Your task to perform on an android device: Open Reddit.com Image 0: 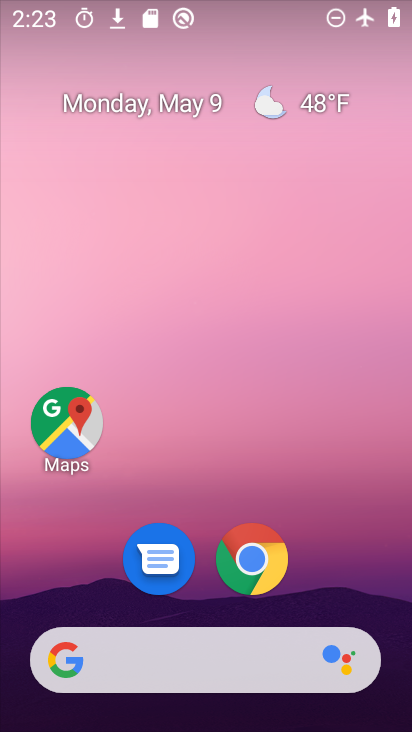
Step 0: drag from (207, 592) to (207, 281)
Your task to perform on an android device: Open Reddit.com Image 1: 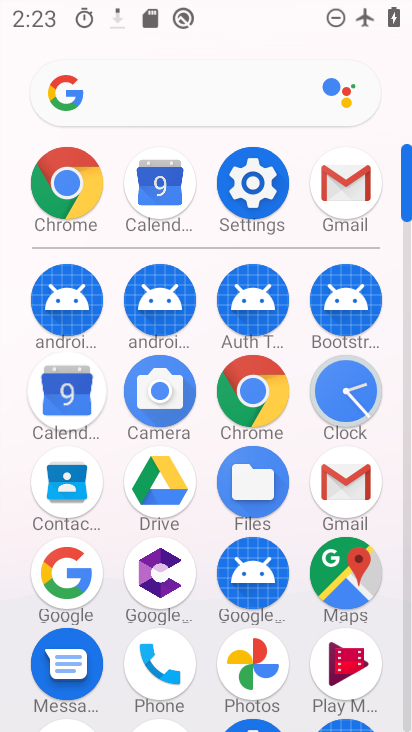
Step 1: click (191, 92)
Your task to perform on an android device: Open Reddit.com Image 2: 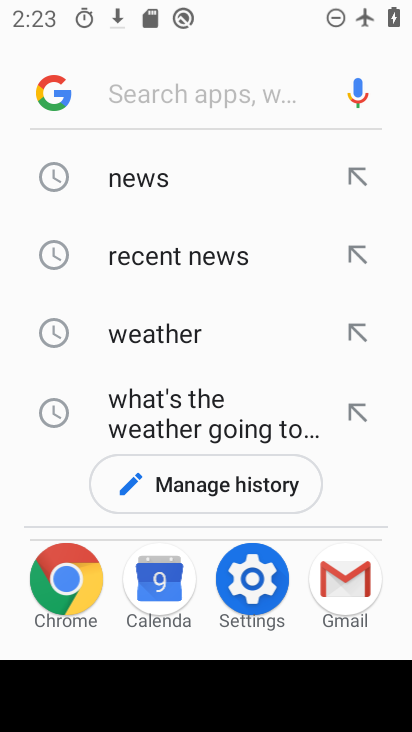
Step 2: type "reddit.com"
Your task to perform on an android device: Open Reddit.com Image 3: 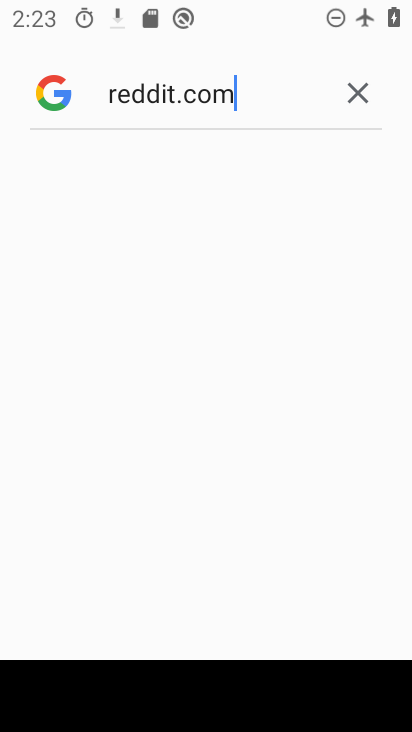
Step 3: drag from (240, 342) to (270, 155)
Your task to perform on an android device: Open Reddit.com Image 4: 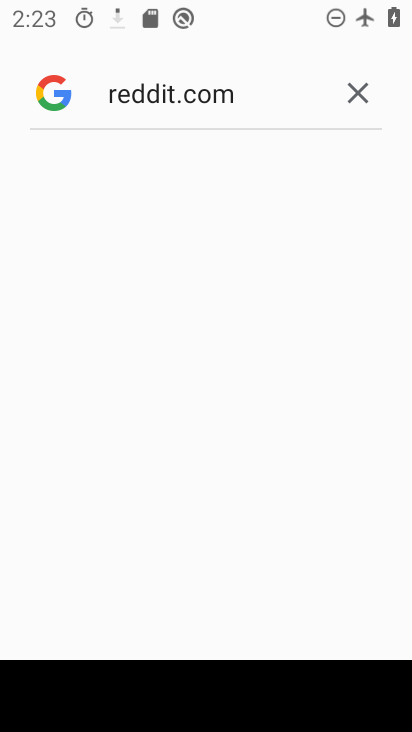
Step 4: click (184, 205)
Your task to perform on an android device: Open Reddit.com Image 5: 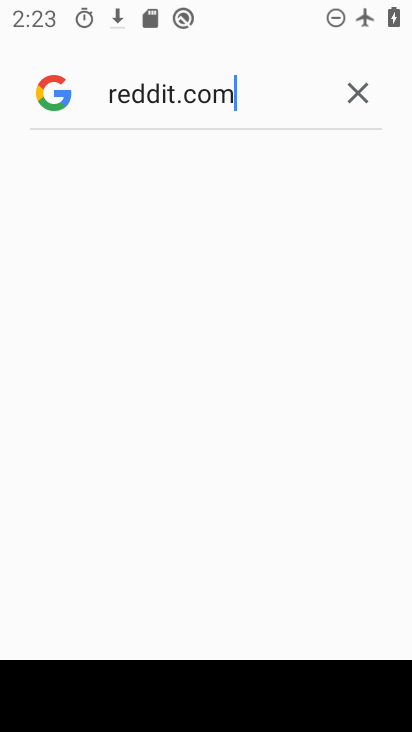
Step 5: drag from (229, 295) to (236, 362)
Your task to perform on an android device: Open Reddit.com Image 6: 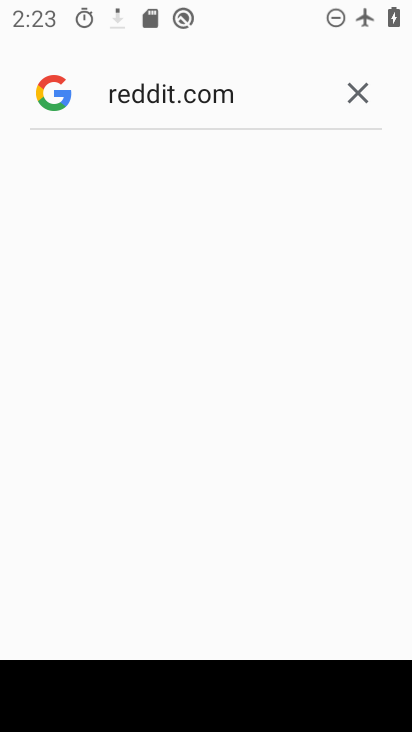
Step 6: click (236, 362)
Your task to perform on an android device: Open Reddit.com Image 7: 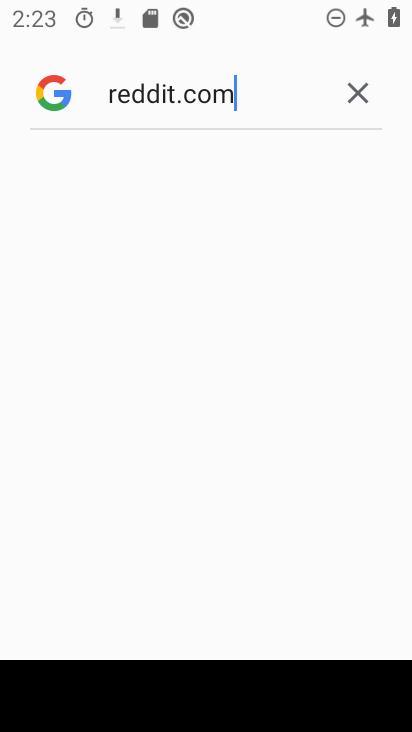
Step 7: click (235, 363)
Your task to perform on an android device: Open Reddit.com Image 8: 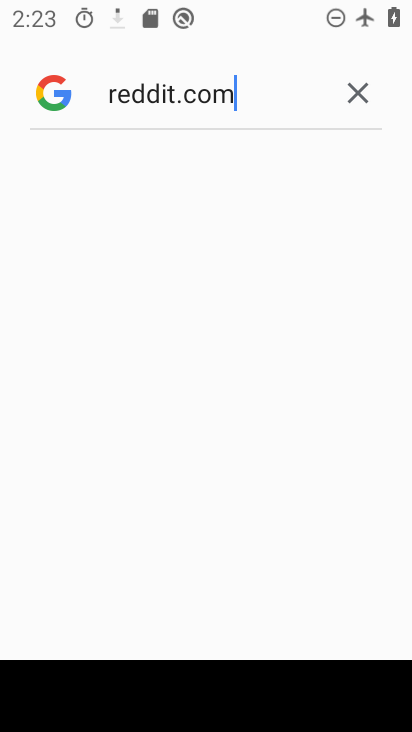
Step 8: click (233, 358)
Your task to perform on an android device: Open Reddit.com Image 9: 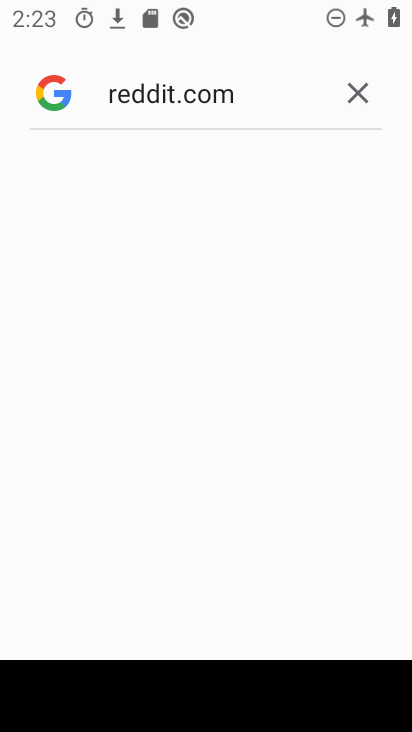
Step 9: click (233, 357)
Your task to perform on an android device: Open Reddit.com Image 10: 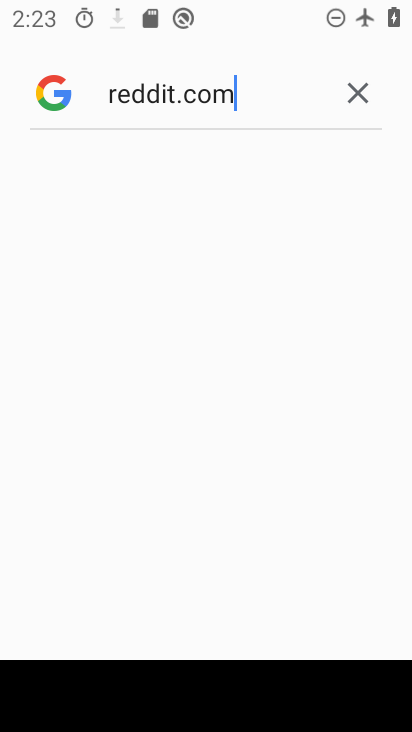
Step 10: click (233, 357)
Your task to perform on an android device: Open Reddit.com Image 11: 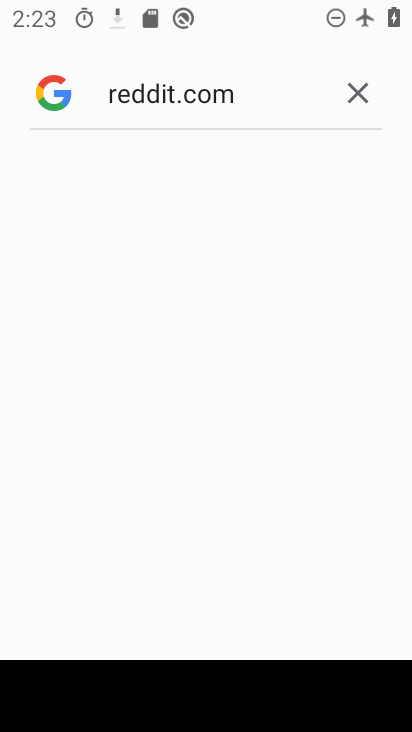
Step 11: click (239, 299)
Your task to perform on an android device: Open Reddit.com Image 12: 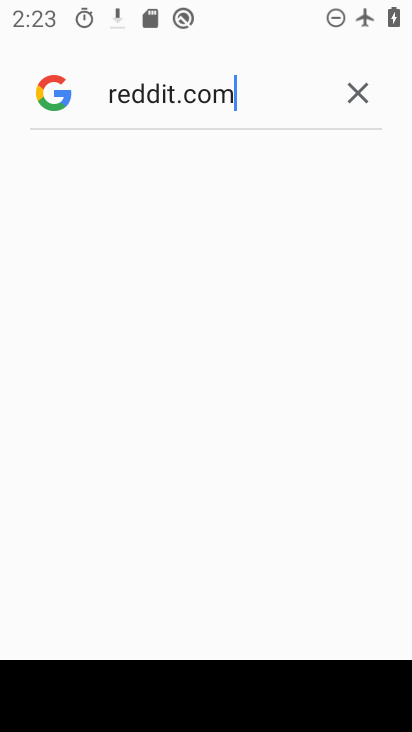
Step 12: drag from (240, 512) to (246, 307)
Your task to perform on an android device: Open Reddit.com Image 13: 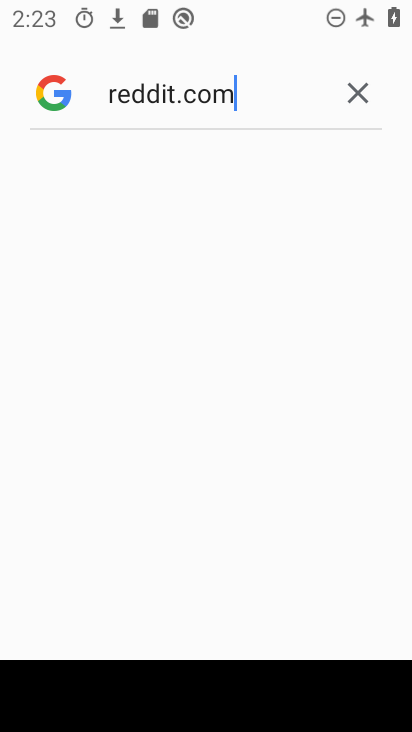
Step 13: click (209, 226)
Your task to perform on an android device: Open Reddit.com Image 14: 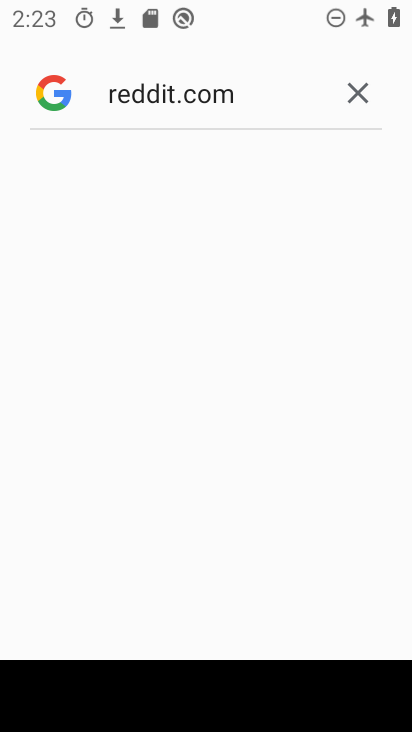
Step 14: click (251, 356)
Your task to perform on an android device: Open Reddit.com Image 15: 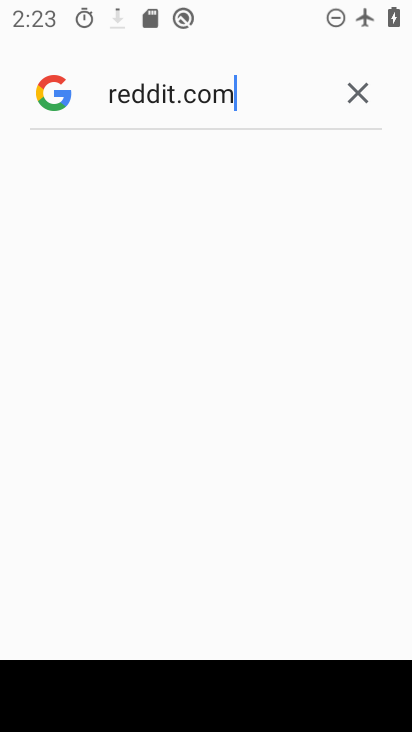
Step 15: click (251, 356)
Your task to perform on an android device: Open Reddit.com Image 16: 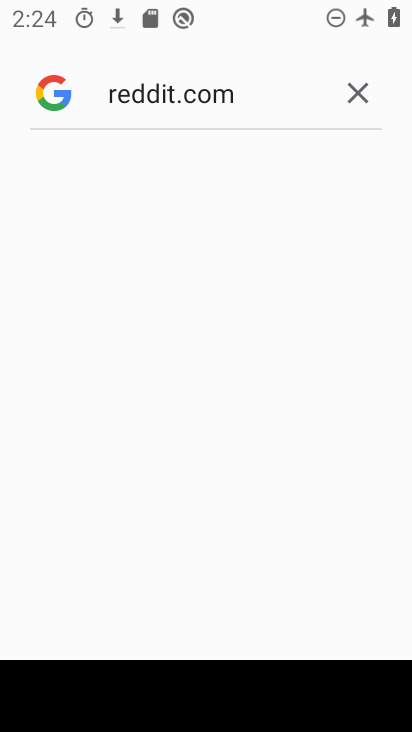
Step 16: click (189, 337)
Your task to perform on an android device: Open Reddit.com Image 17: 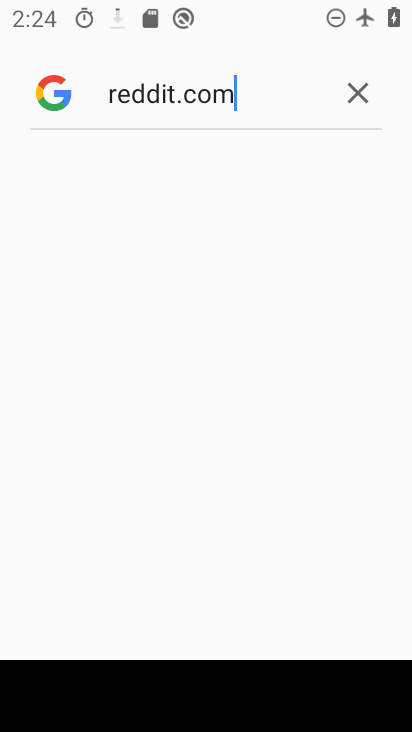
Step 17: click (182, 332)
Your task to perform on an android device: Open Reddit.com Image 18: 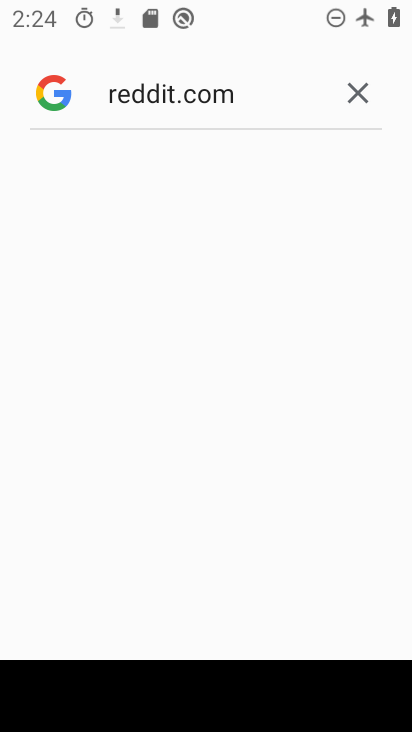
Step 18: click (182, 332)
Your task to perform on an android device: Open Reddit.com Image 19: 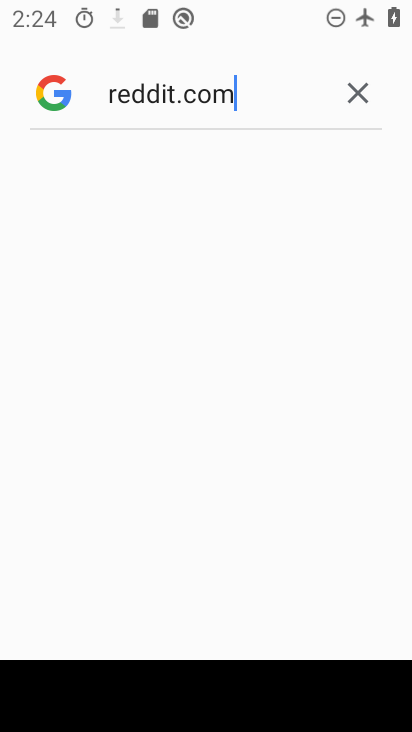
Step 19: click (188, 277)
Your task to perform on an android device: Open Reddit.com Image 20: 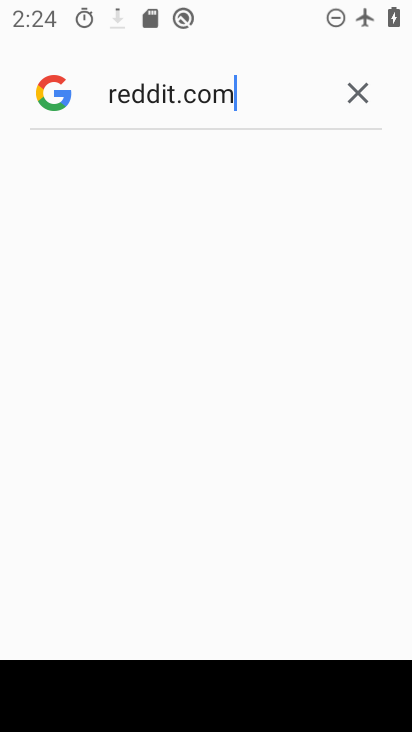
Step 20: task complete